Your task to perform on an android device: uninstall "Mercado Libre" Image 0: 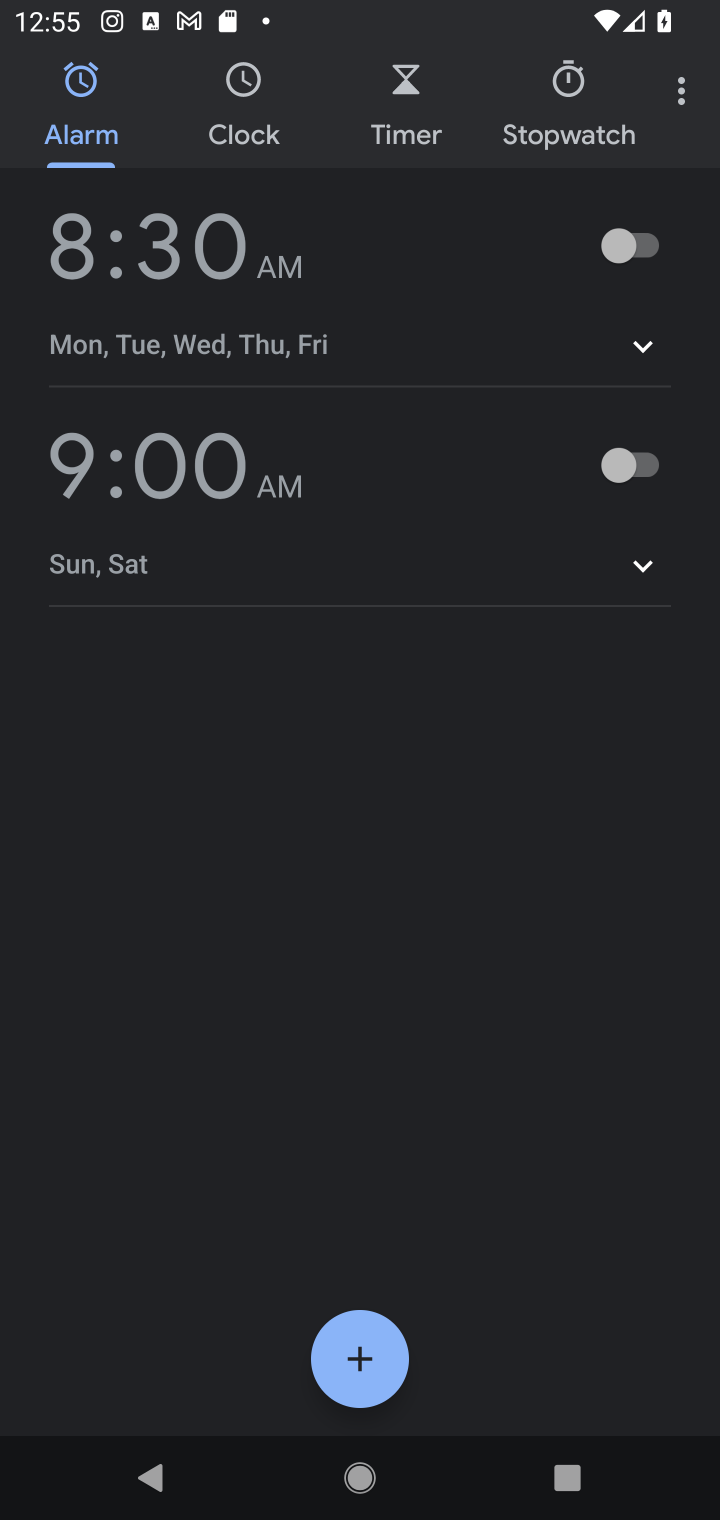
Step 0: press home button
Your task to perform on an android device: uninstall "Mercado Libre" Image 1: 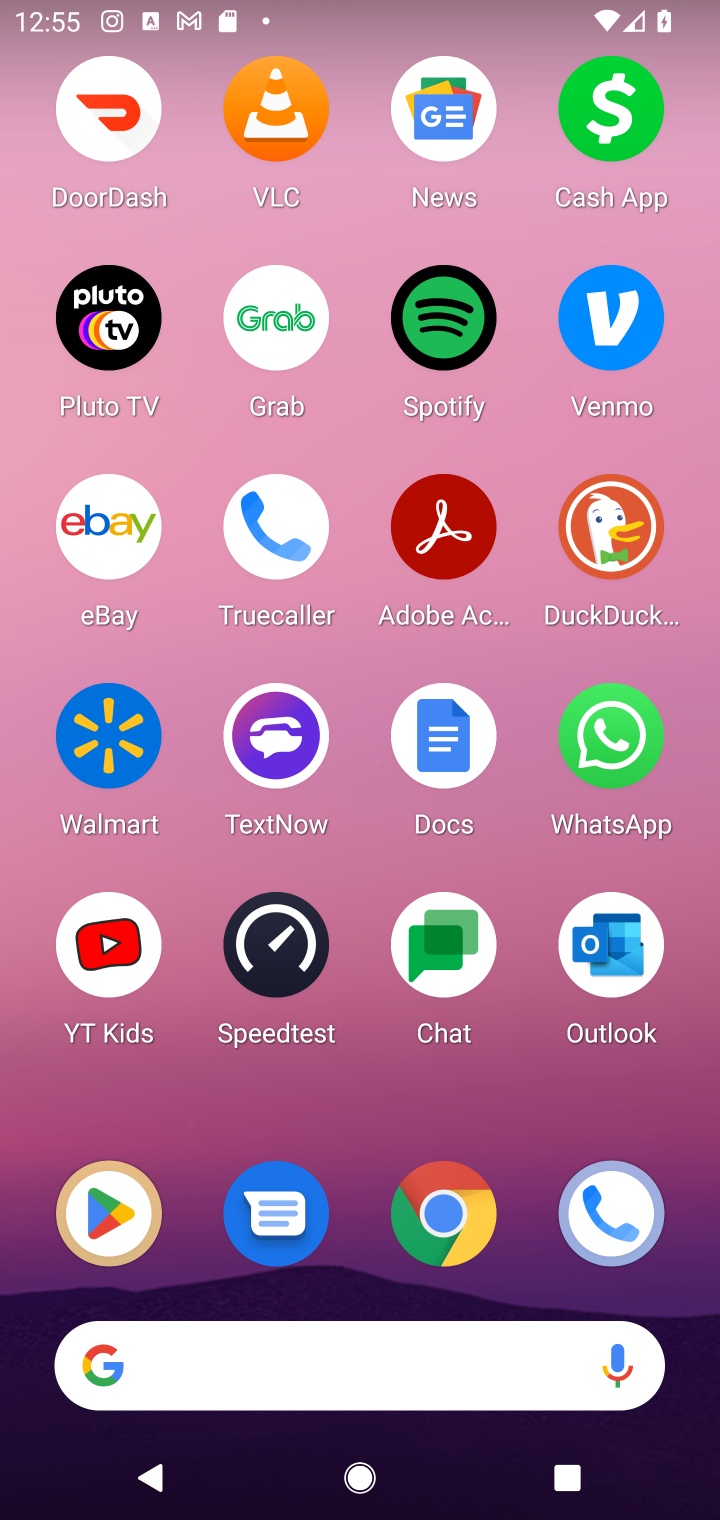
Step 1: click (91, 1199)
Your task to perform on an android device: uninstall "Mercado Libre" Image 2: 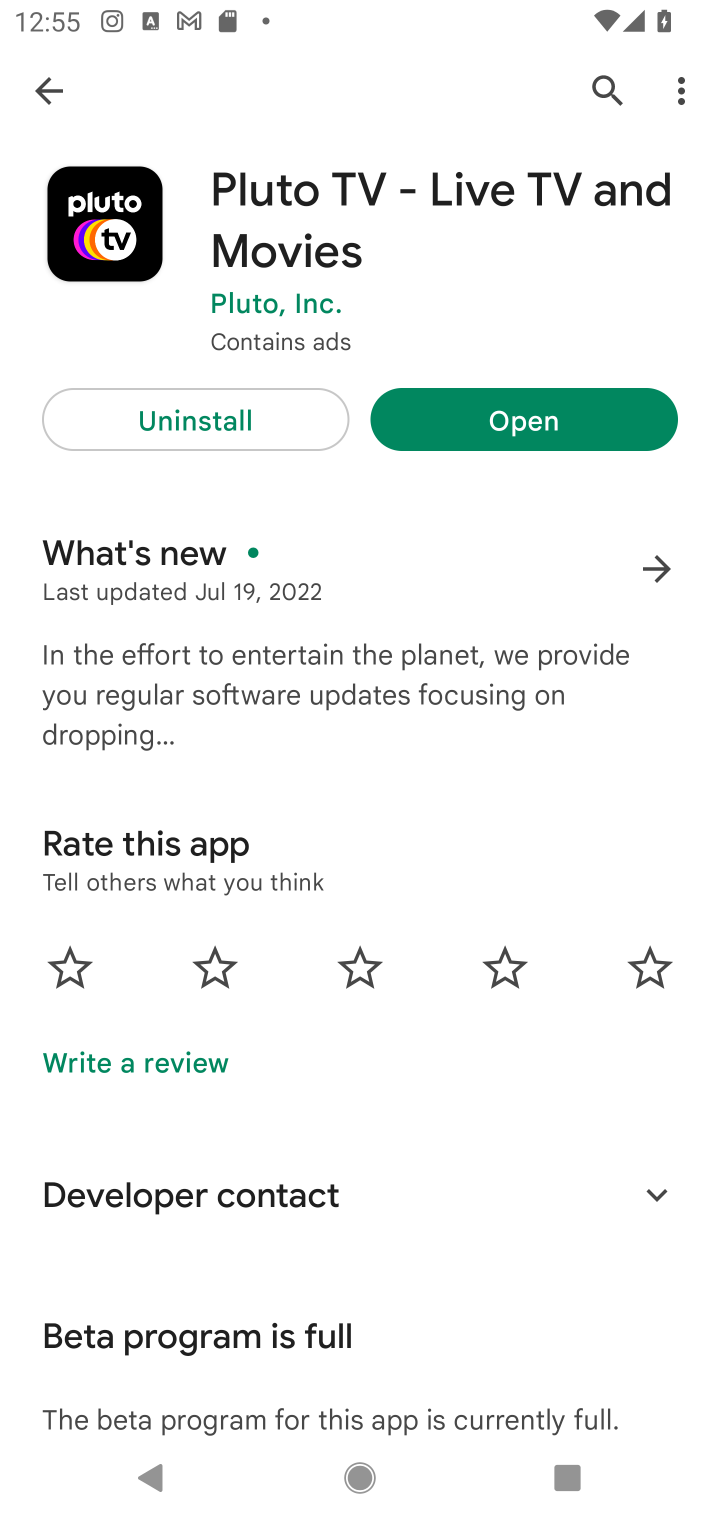
Step 2: click (46, 100)
Your task to perform on an android device: uninstall "Mercado Libre" Image 3: 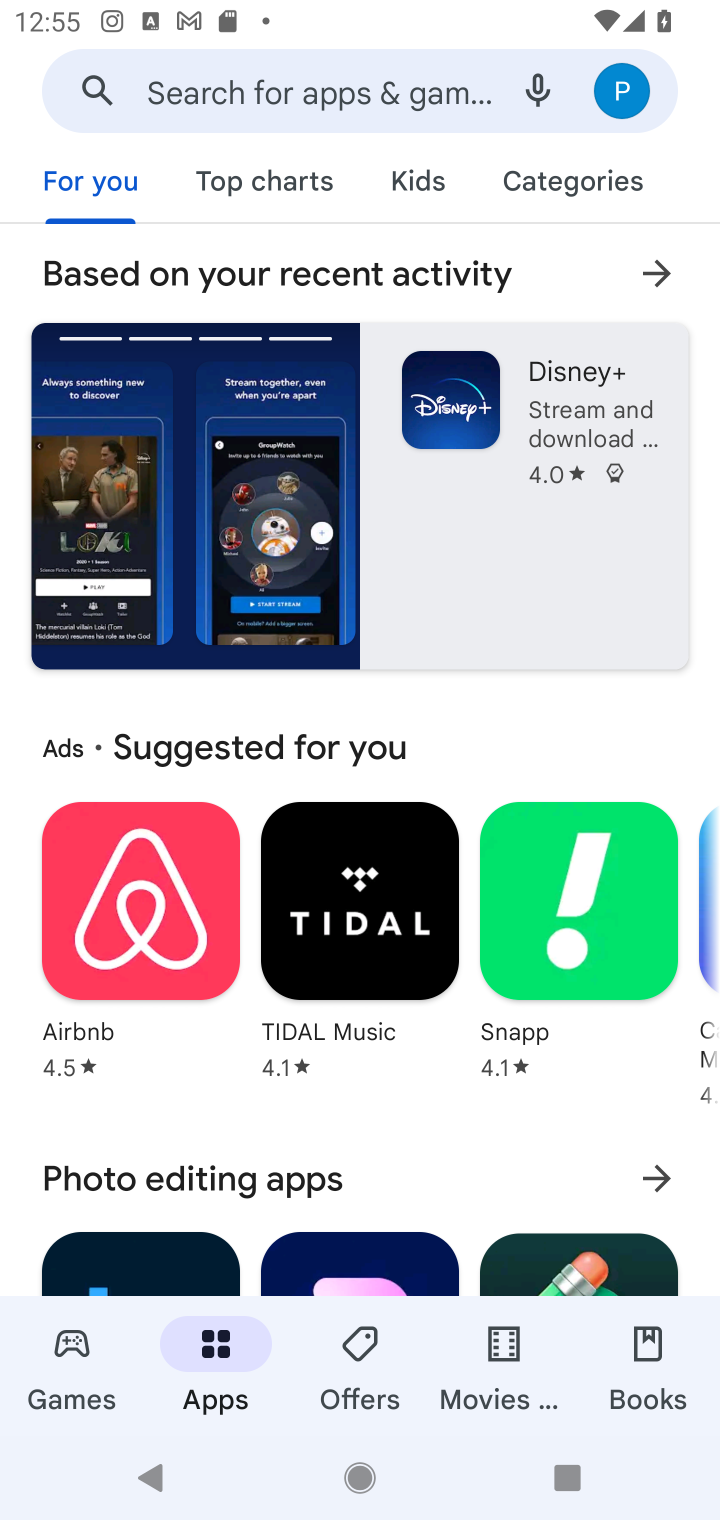
Step 3: click (293, 72)
Your task to perform on an android device: uninstall "Mercado Libre" Image 4: 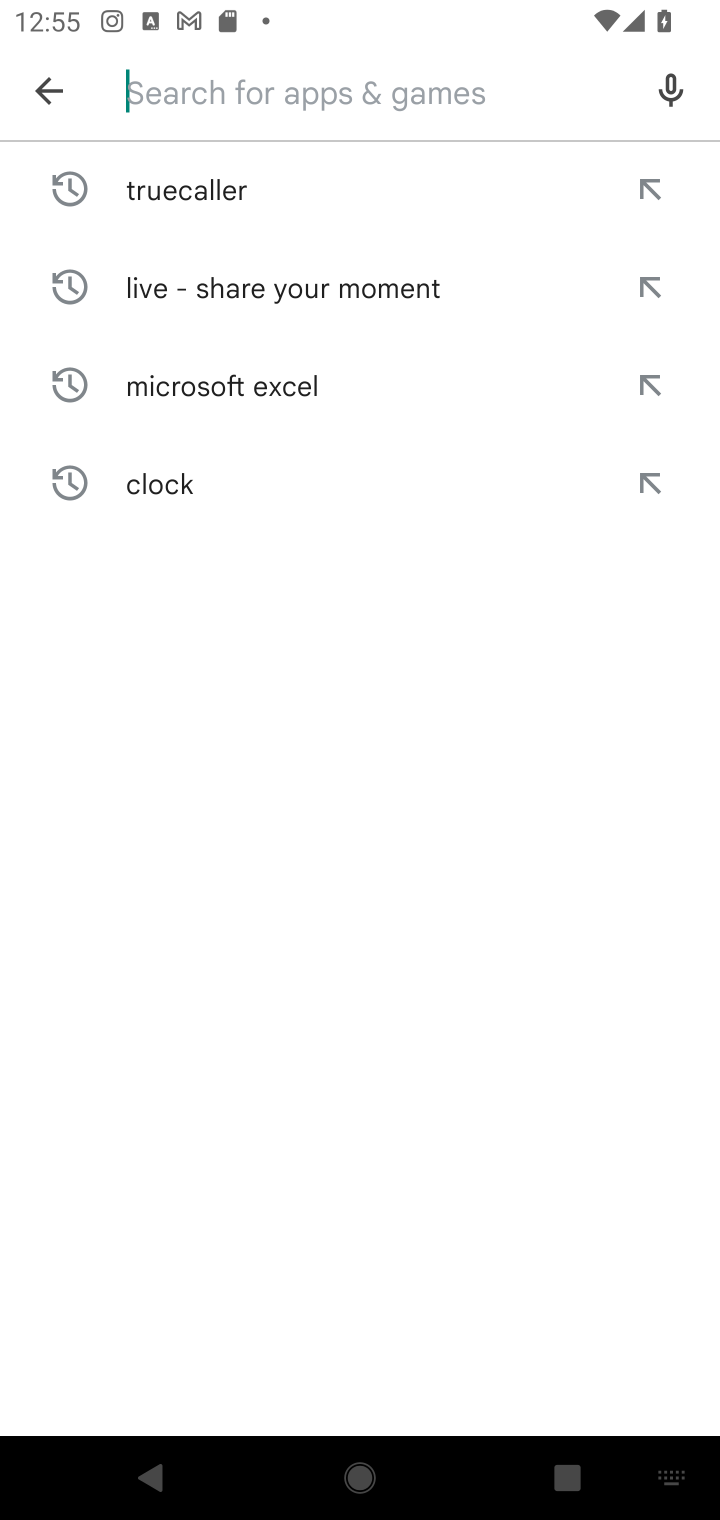
Step 4: type "Mercado Libre"
Your task to perform on an android device: uninstall "Mercado Libre" Image 5: 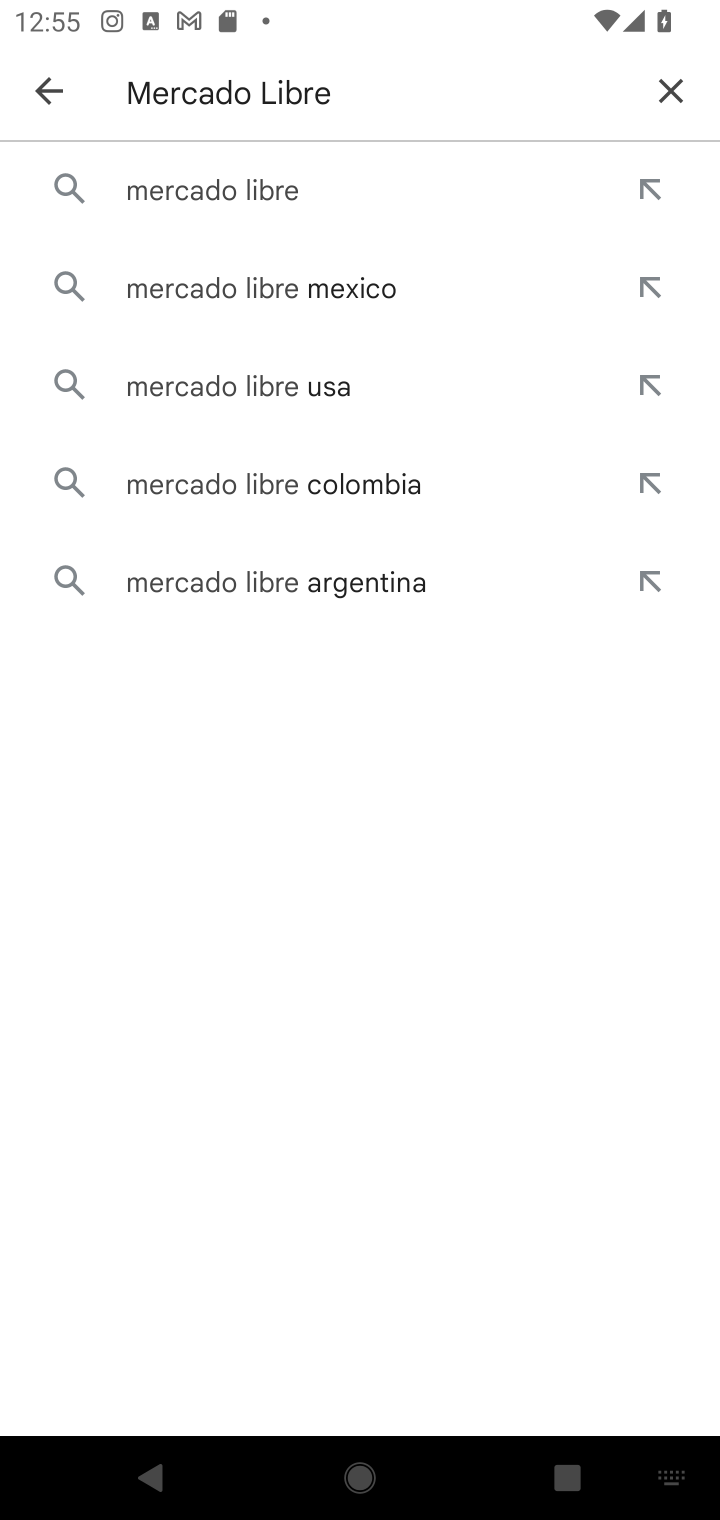
Step 5: click (234, 193)
Your task to perform on an android device: uninstall "Mercado Libre" Image 6: 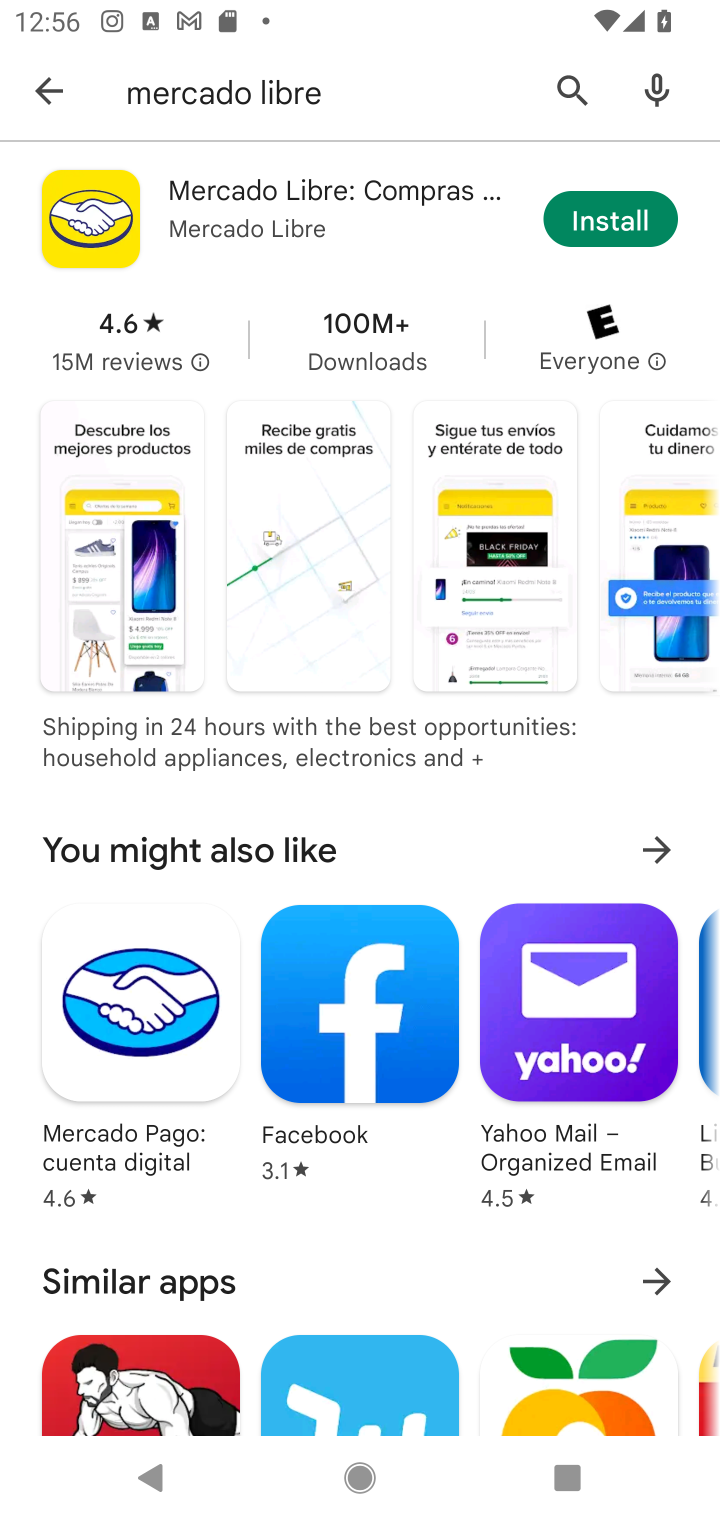
Step 6: task complete